Your task to perform on an android device: Go to sound settings Image 0: 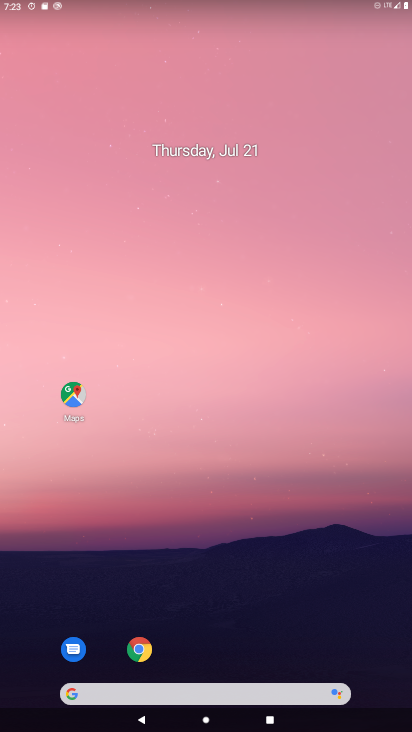
Step 0: drag from (364, 637) to (170, 95)
Your task to perform on an android device: Go to sound settings Image 1: 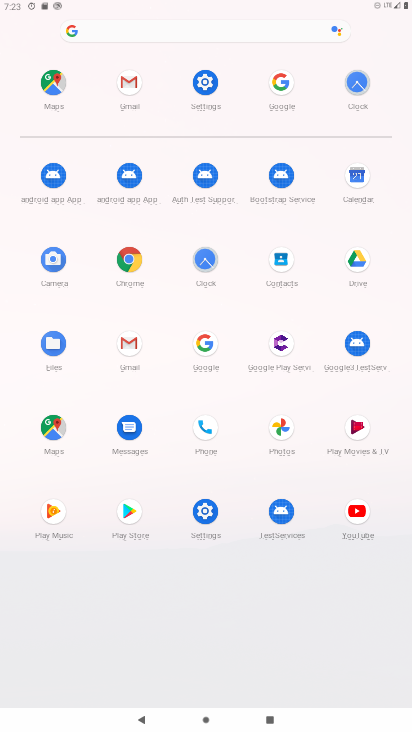
Step 1: click (204, 508)
Your task to perform on an android device: Go to sound settings Image 2: 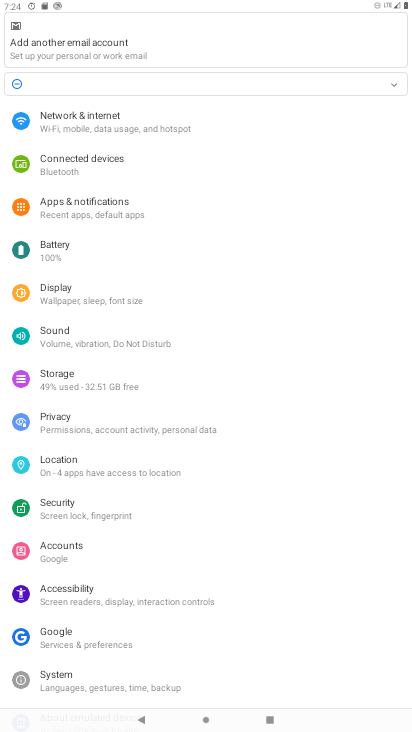
Step 2: click (60, 330)
Your task to perform on an android device: Go to sound settings Image 3: 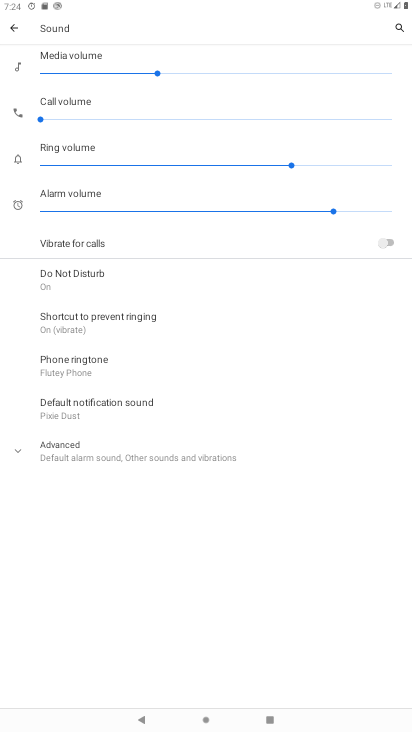
Step 3: task complete